Your task to perform on an android device: Search for vegetarian restaurants on Maps Image 0: 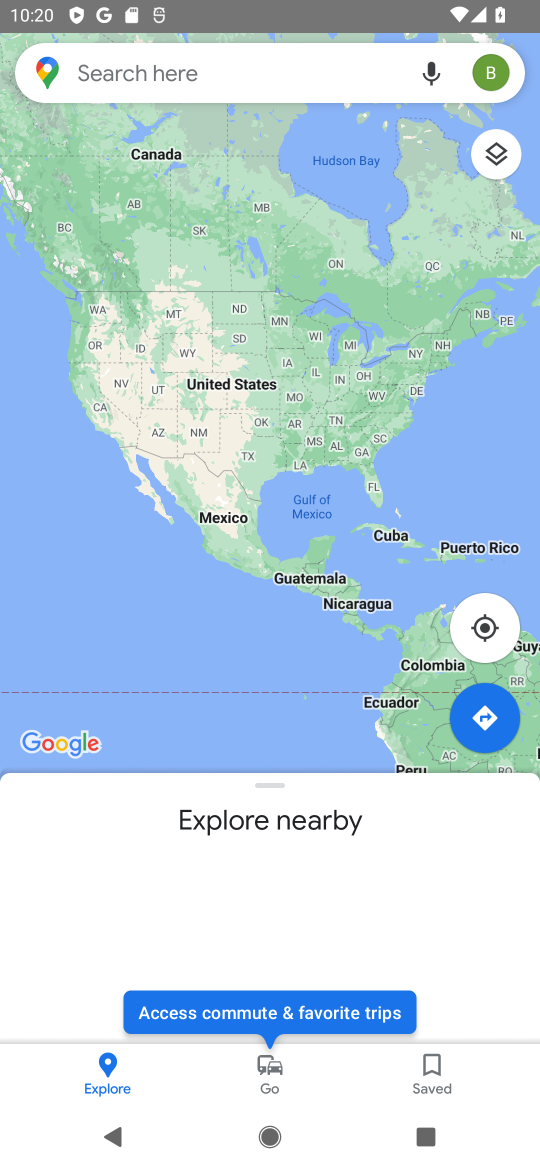
Step 0: click (278, 77)
Your task to perform on an android device: Search for vegetarian restaurants on Maps Image 1: 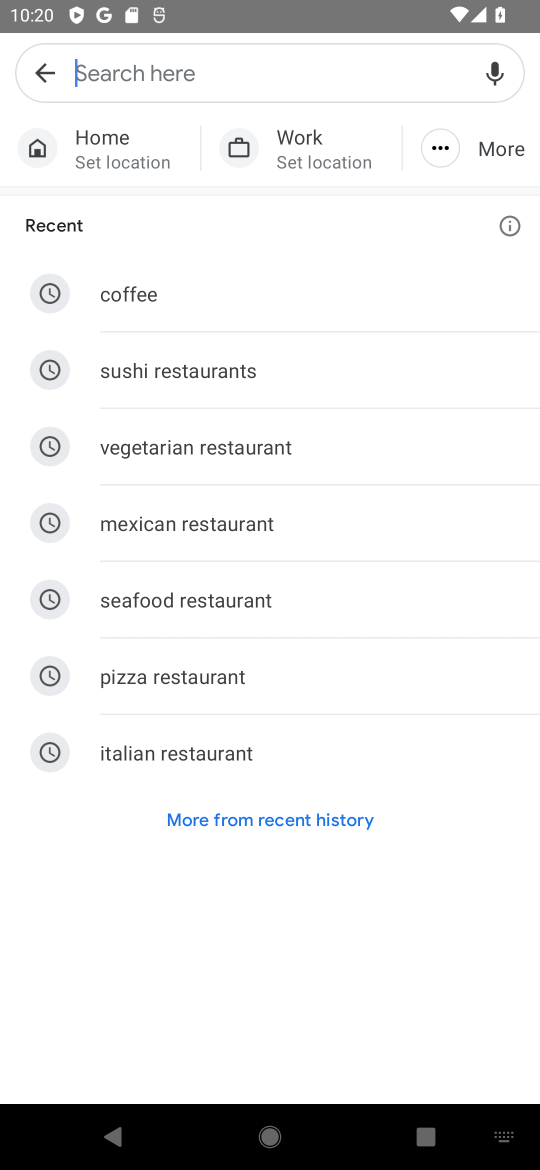
Step 1: click (218, 434)
Your task to perform on an android device: Search for vegetarian restaurants on Maps Image 2: 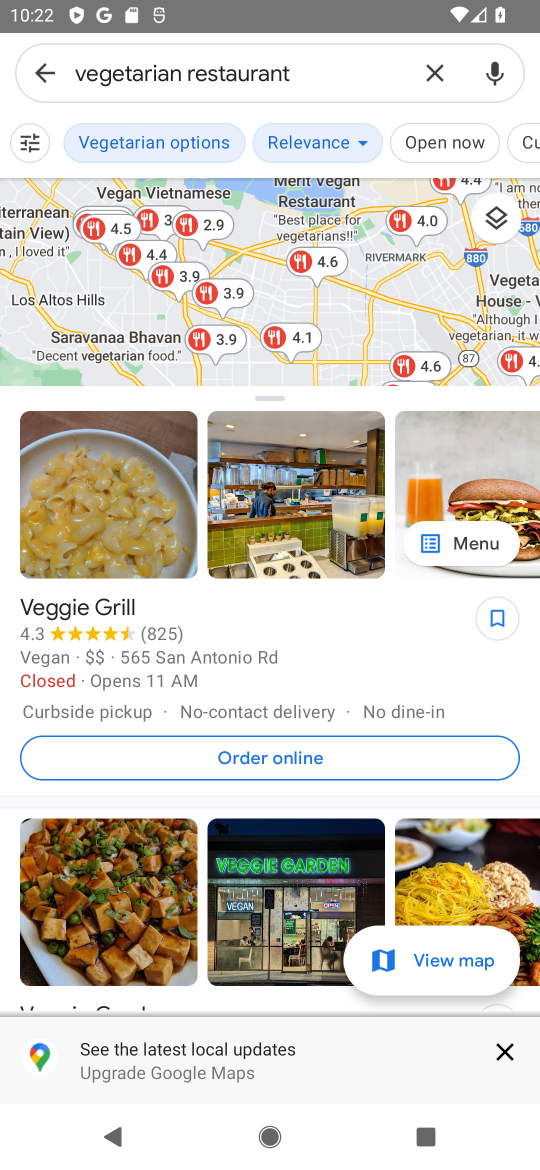
Step 2: task complete